Your task to perform on an android device: Open accessibility settings Image 0: 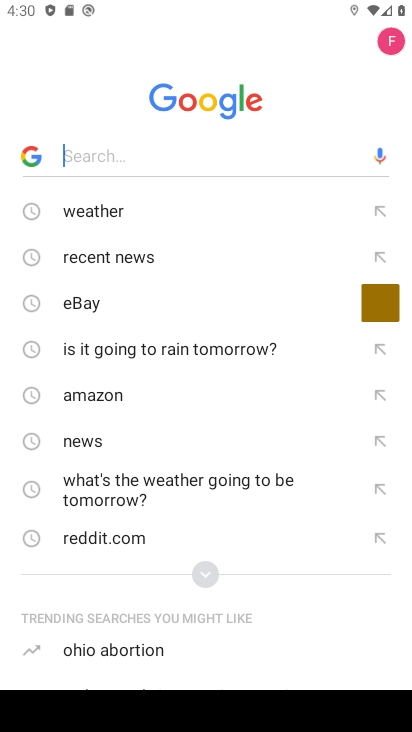
Step 0: drag from (202, 656) to (269, 92)
Your task to perform on an android device: Open accessibility settings Image 1: 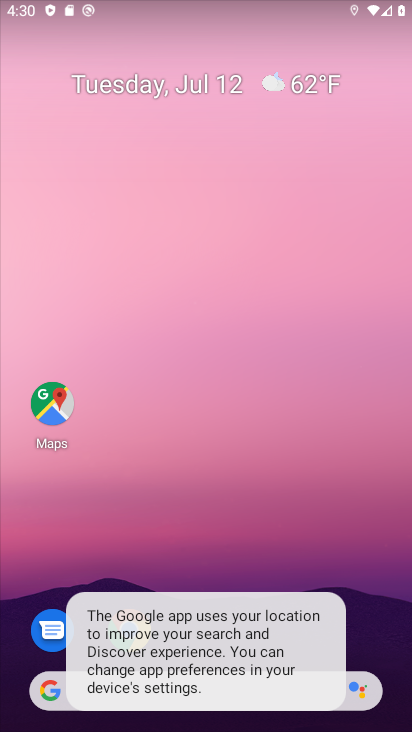
Step 1: drag from (239, 661) to (320, 121)
Your task to perform on an android device: Open accessibility settings Image 2: 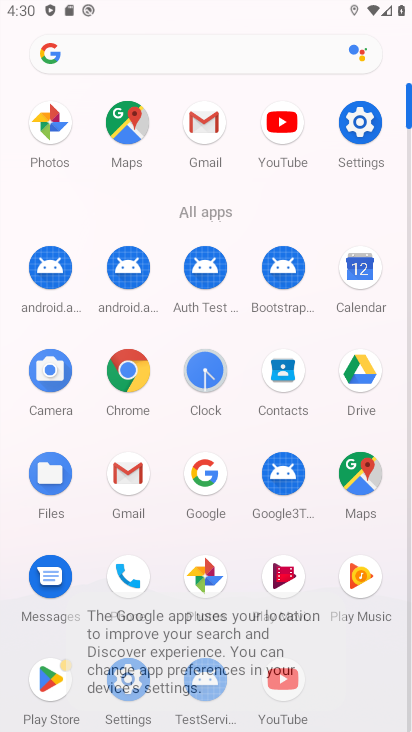
Step 2: drag from (187, 528) to (213, 307)
Your task to perform on an android device: Open accessibility settings Image 3: 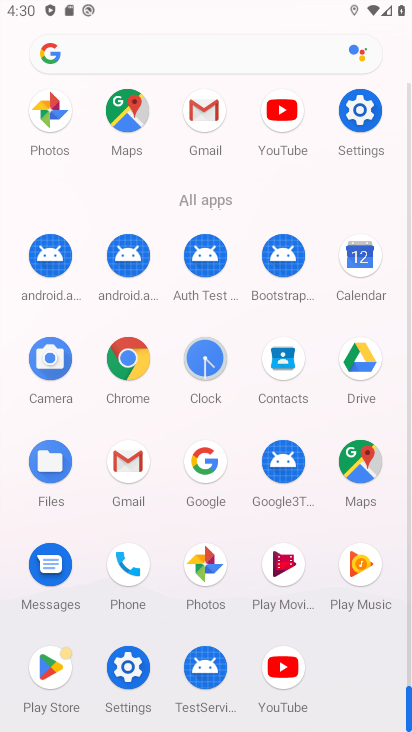
Step 3: click (137, 668)
Your task to perform on an android device: Open accessibility settings Image 4: 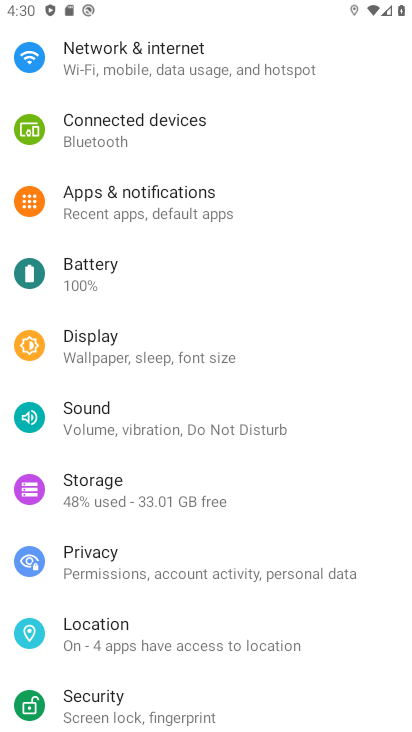
Step 4: drag from (130, 636) to (184, 321)
Your task to perform on an android device: Open accessibility settings Image 5: 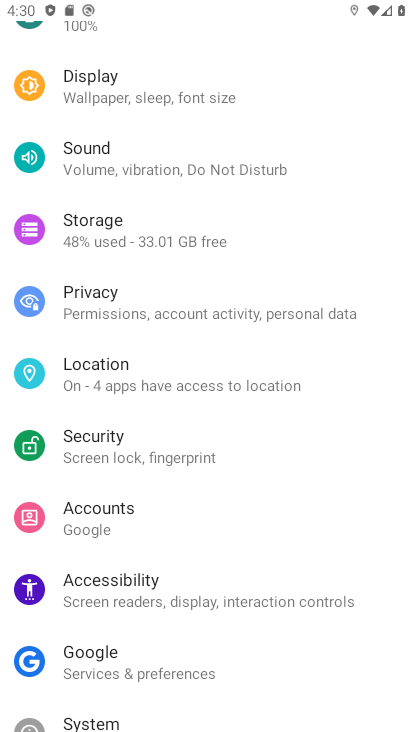
Step 5: click (158, 578)
Your task to perform on an android device: Open accessibility settings Image 6: 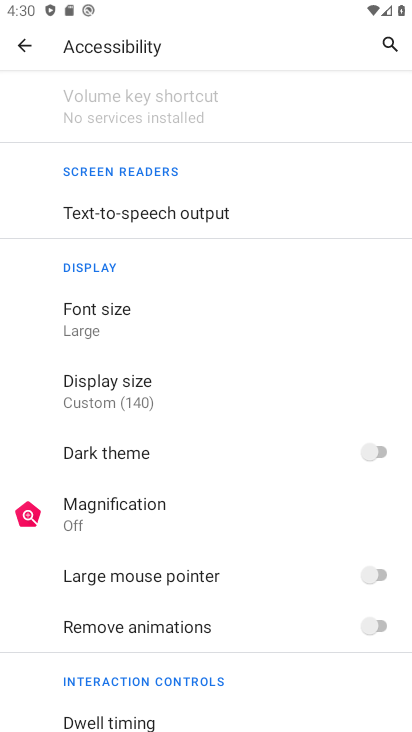
Step 6: task complete